Your task to perform on an android device: choose inbox layout in the gmail app Image 0: 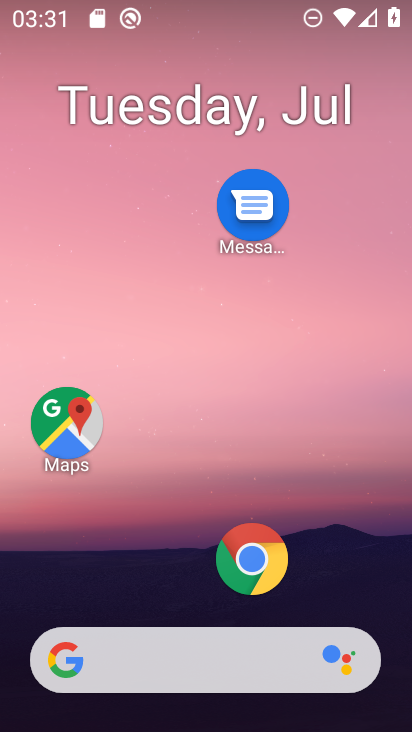
Step 0: drag from (114, 559) to (217, 4)
Your task to perform on an android device: choose inbox layout in the gmail app Image 1: 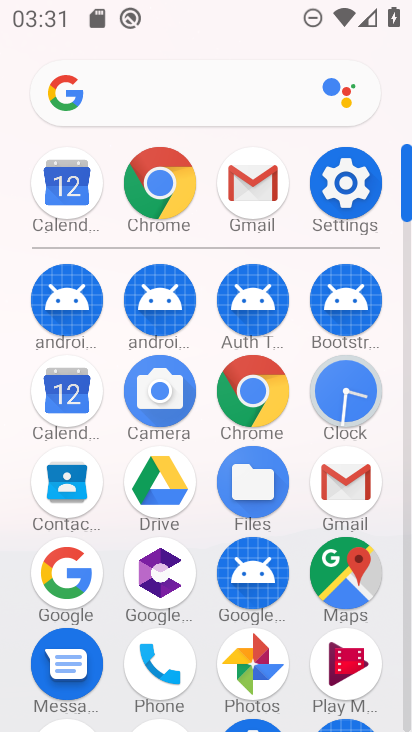
Step 1: click (242, 194)
Your task to perform on an android device: choose inbox layout in the gmail app Image 2: 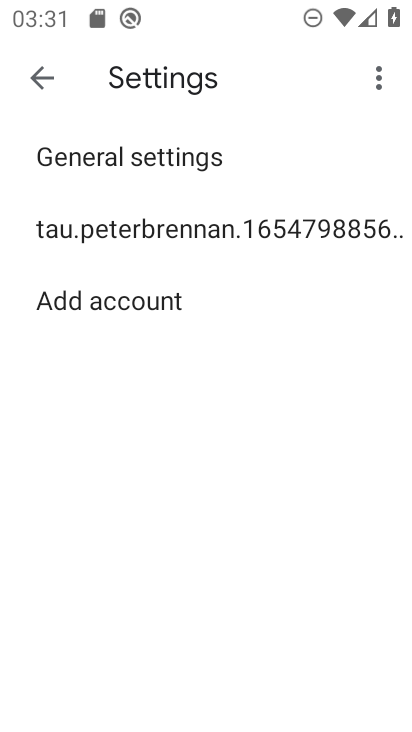
Step 2: click (158, 227)
Your task to perform on an android device: choose inbox layout in the gmail app Image 3: 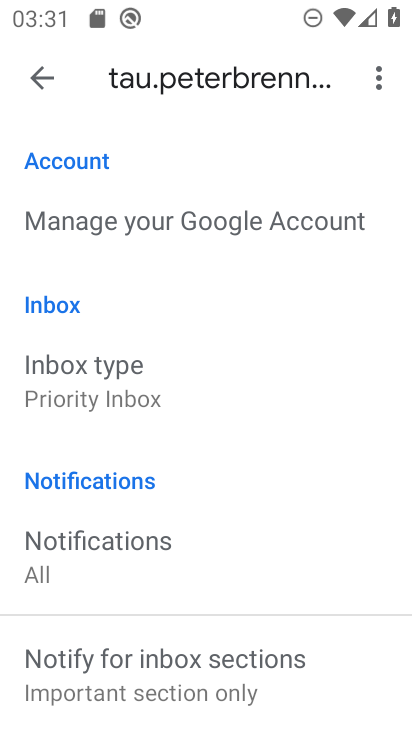
Step 3: click (153, 387)
Your task to perform on an android device: choose inbox layout in the gmail app Image 4: 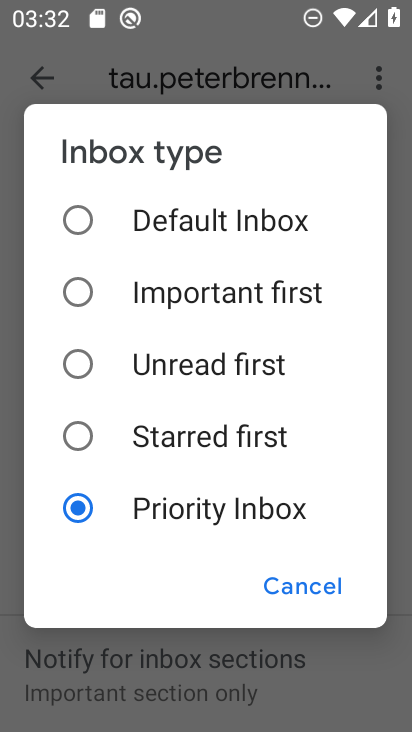
Step 4: click (80, 220)
Your task to perform on an android device: choose inbox layout in the gmail app Image 5: 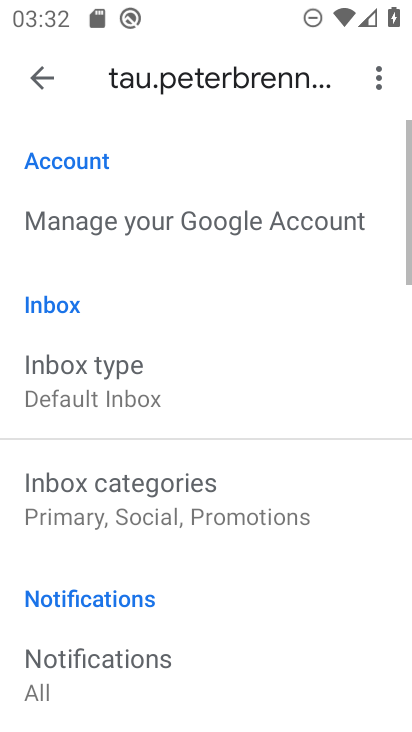
Step 5: task complete